Your task to perform on an android device: Go to privacy settings Image 0: 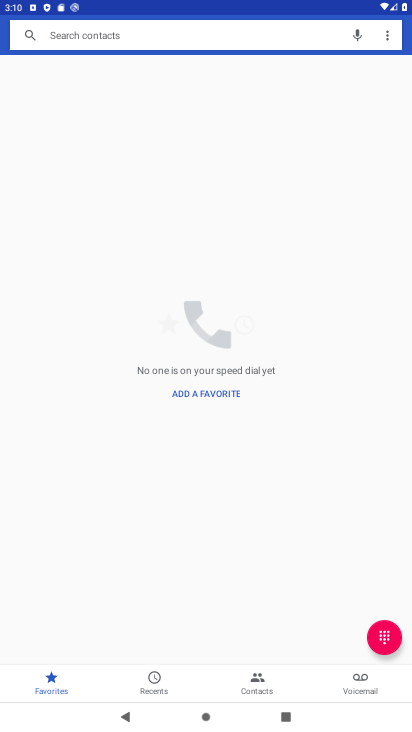
Step 0: press home button
Your task to perform on an android device: Go to privacy settings Image 1: 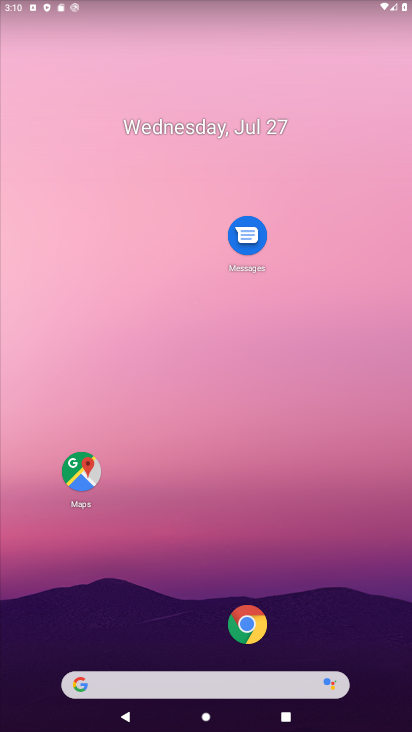
Step 1: drag from (180, 611) to (259, 136)
Your task to perform on an android device: Go to privacy settings Image 2: 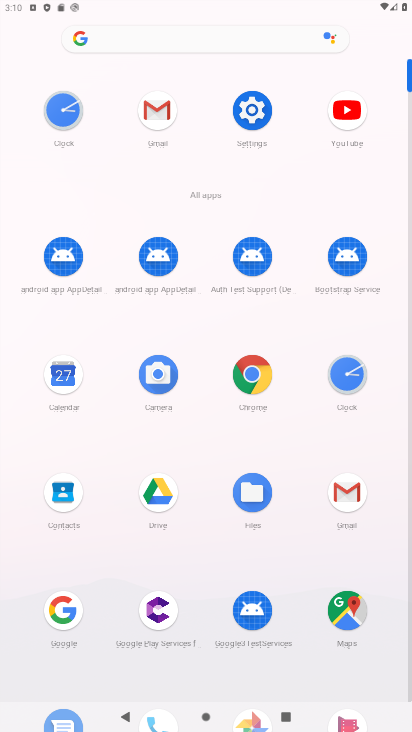
Step 2: click (259, 136)
Your task to perform on an android device: Go to privacy settings Image 3: 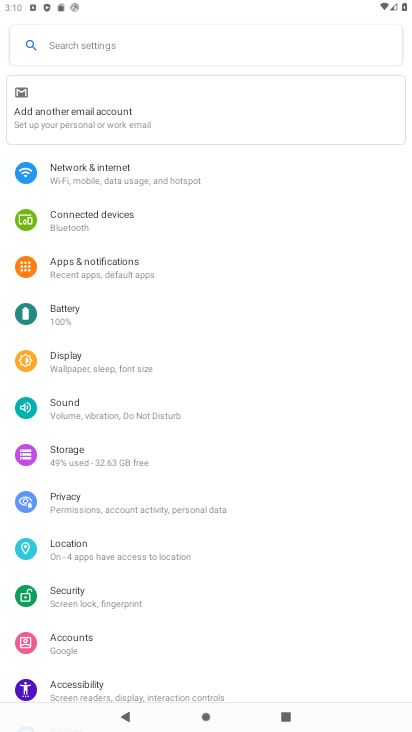
Step 3: click (110, 504)
Your task to perform on an android device: Go to privacy settings Image 4: 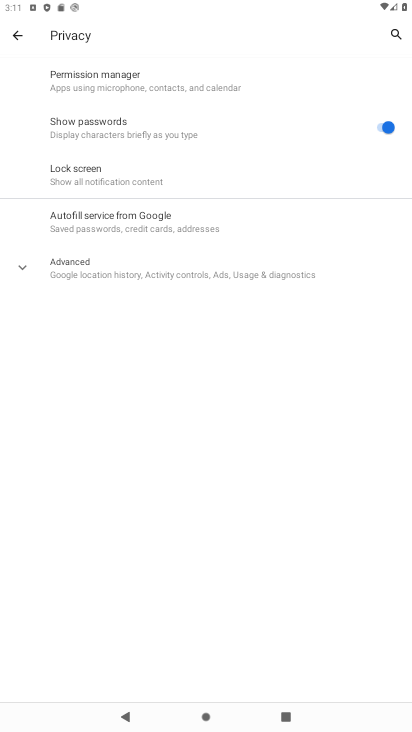
Step 4: task complete